Your task to perform on an android device: turn on improve location accuracy Image 0: 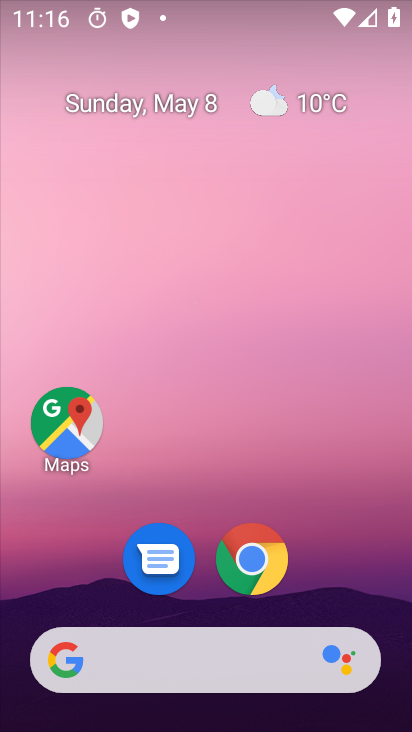
Step 0: drag from (196, 599) to (244, 110)
Your task to perform on an android device: turn on improve location accuracy Image 1: 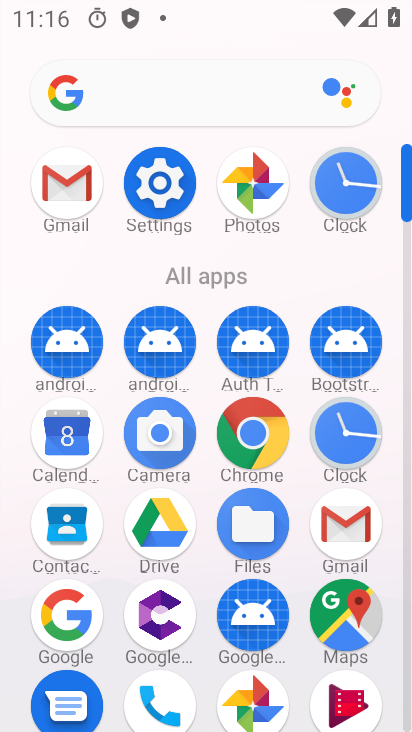
Step 1: click (171, 185)
Your task to perform on an android device: turn on improve location accuracy Image 2: 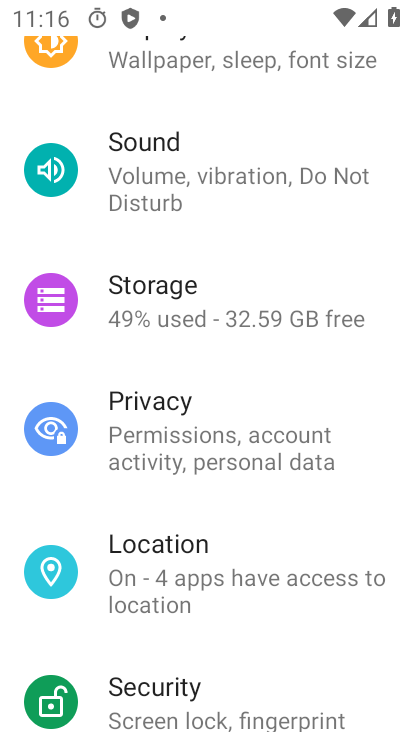
Step 2: click (184, 568)
Your task to perform on an android device: turn on improve location accuracy Image 3: 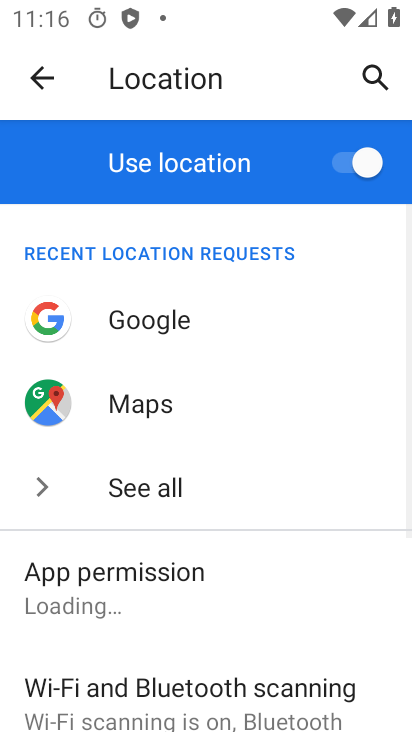
Step 3: drag from (153, 623) to (154, 386)
Your task to perform on an android device: turn on improve location accuracy Image 4: 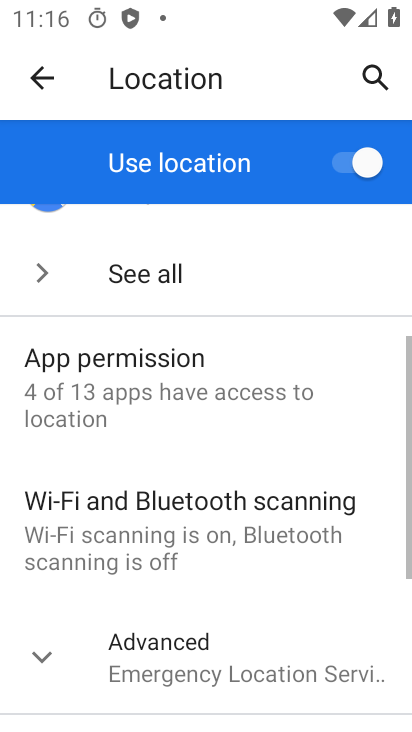
Step 4: click (147, 657)
Your task to perform on an android device: turn on improve location accuracy Image 5: 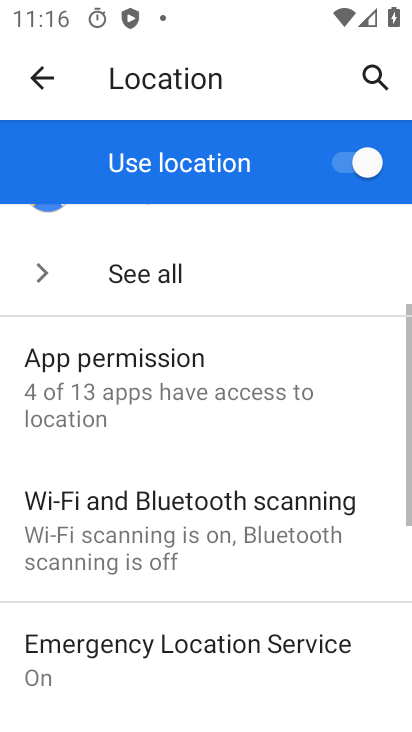
Step 5: drag from (166, 669) to (173, 446)
Your task to perform on an android device: turn on improve location accuracy Image 6: 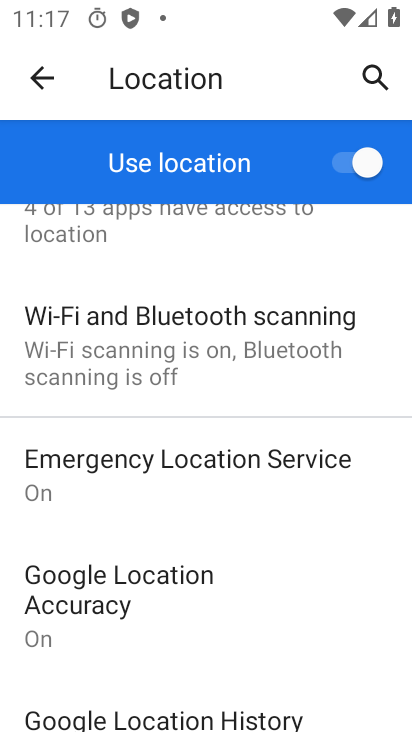
Step 6: click (128, 622)
Your task to perform on an android device: turn on improve location accuracy Image 7: 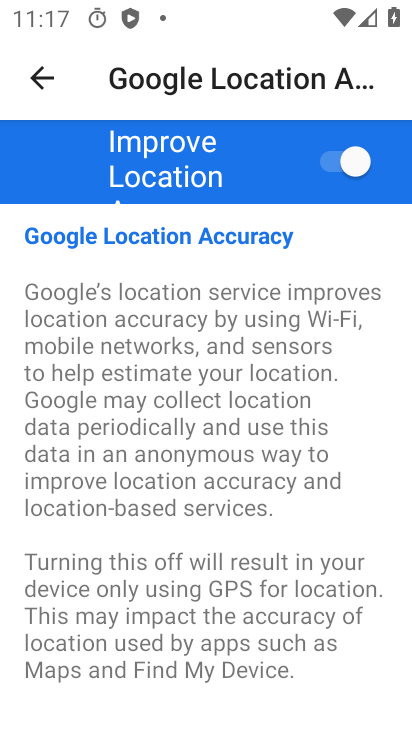
Step 7: task complete